Your task to perform on an android device: turn on improve location accuracy Image 0: 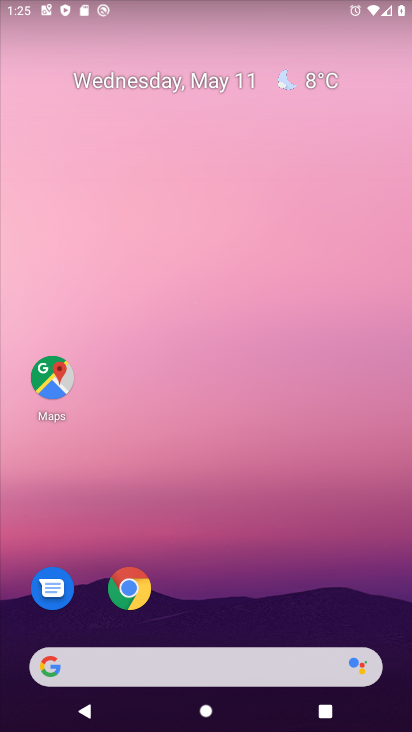
Step 0: drag from (292, 620) to (305, 37)
Your task to perform on an android device: turn on improve location accuracy Image 1: 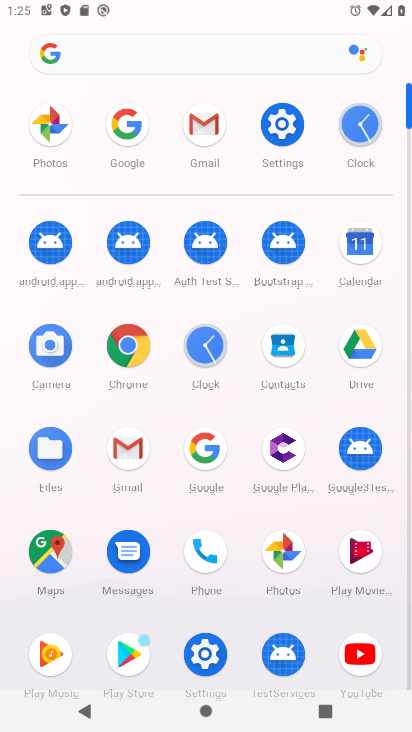
Step 1: click (281, 124)
Your task to perform on an android device: turn on improve location accuracy Image 2: 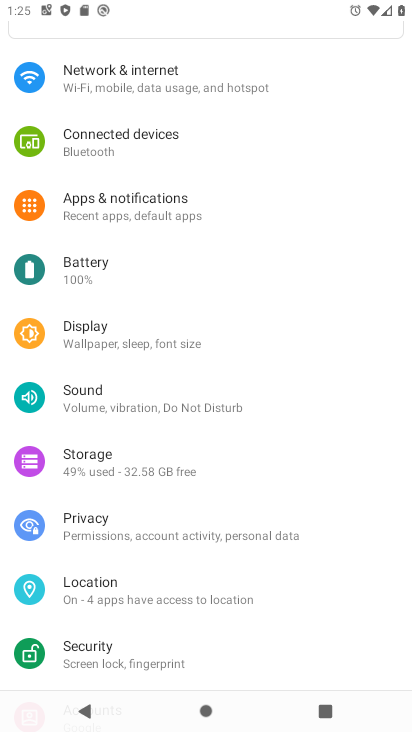
Step 2: click (112, 593)
Your task to perform on an android device: turn on improve location accuracy Image 3: 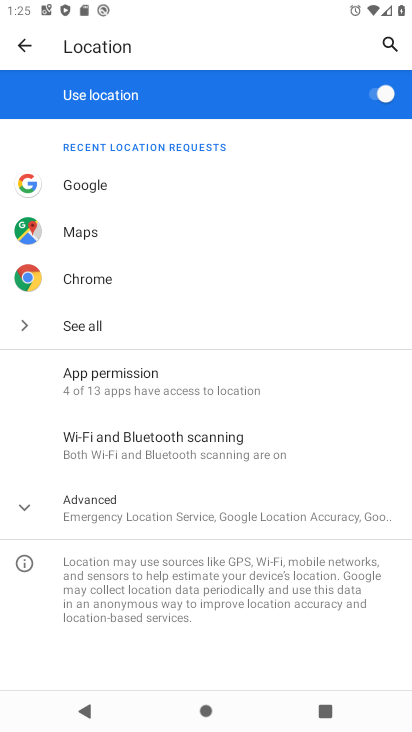
Step 3: click (22, 514)
Your task to perform on an android device: turn on improve location accuracy Image 4: 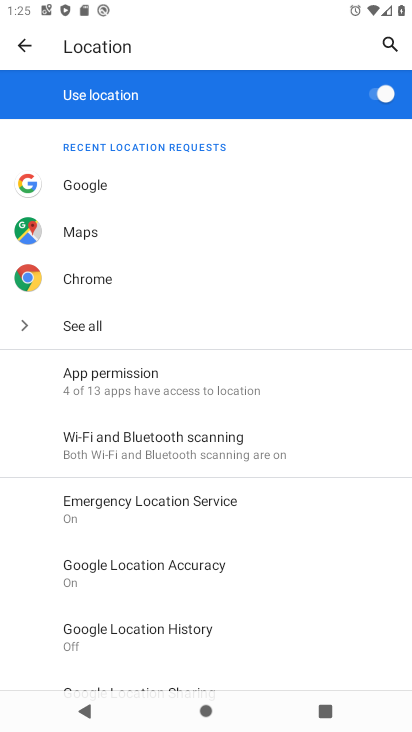
Step 4: click (66, 572)
Your task to perform on an android device: turn on improve location accuracy Image 5: 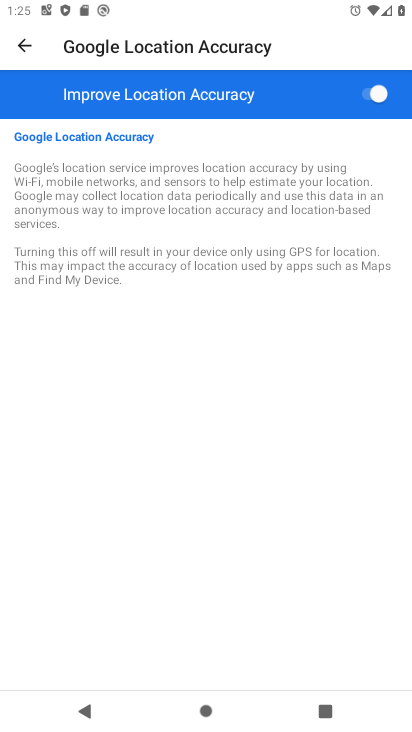
Step 5: task complete